Your task to perform on an android device: change keyboard looks Image 0: 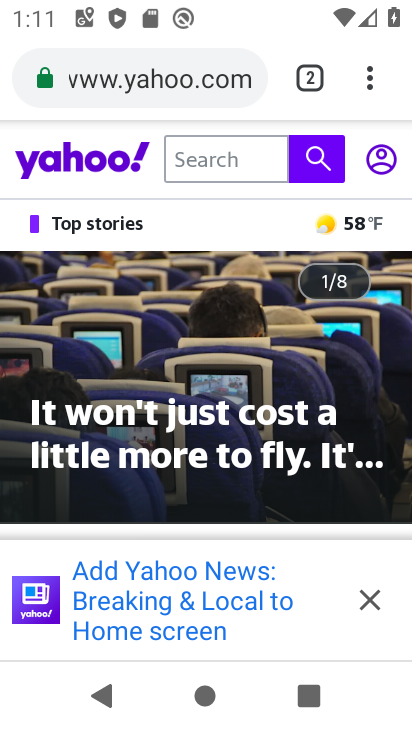
Step 0: press home button
Your task to perform on an android device: change keyboard looks Image 1: 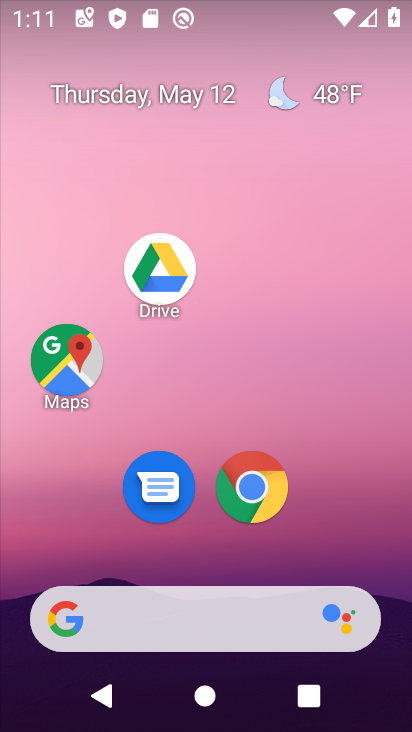
Step 1: drag from (232, 548) to (242, 0)
Your task to perform on an android device: change keyboard looks Image 2: 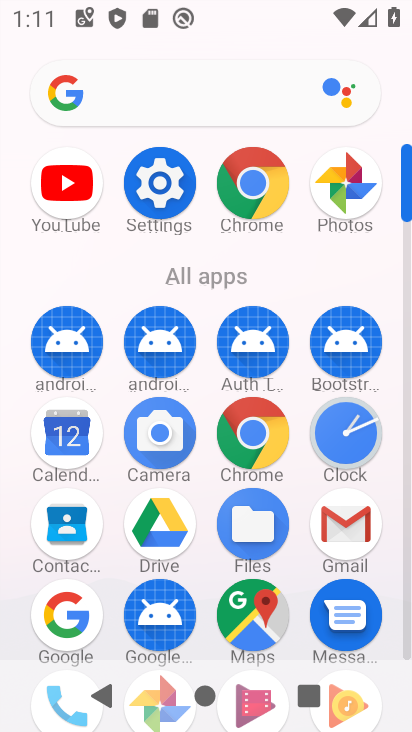
Step 2: click (166, 193)
Your task to perform on an android device: change keyboard looks Image 3: 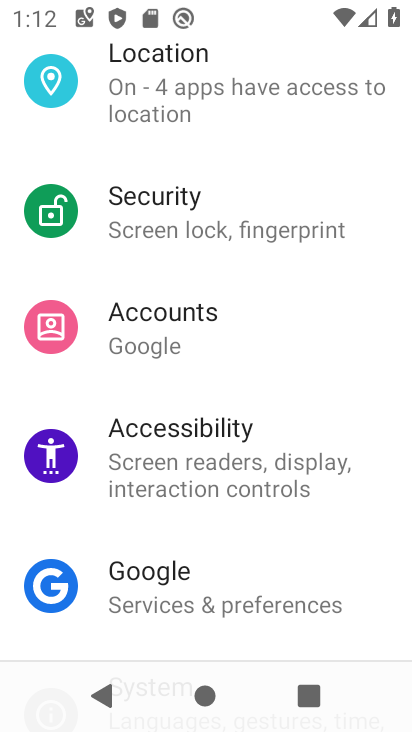
Step 3: drag from (234, 267) to (243, 448)
Your task to perform on an android device: change keyboard looks Image 4: 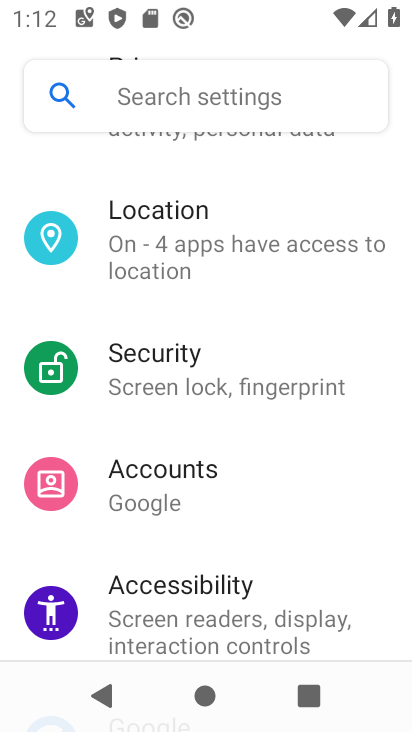
Step 4: drag from (243, 449) to (234, 87)
Your task to perform on an android device: change keyboard looks Image 5: 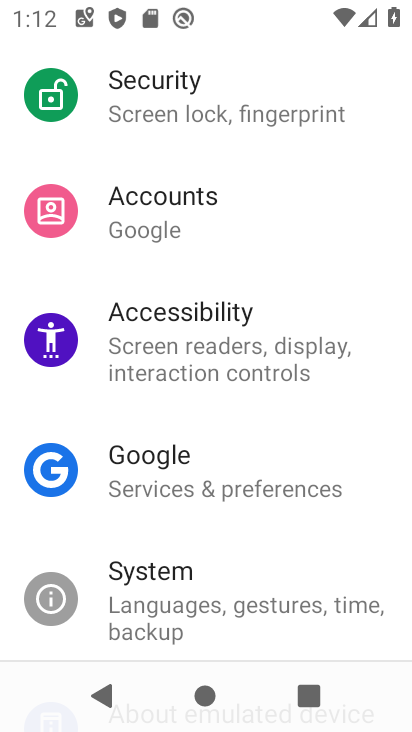
Step 5: click (193, 568)
Your task to perform on an android device: change keyboard looks Image 6: 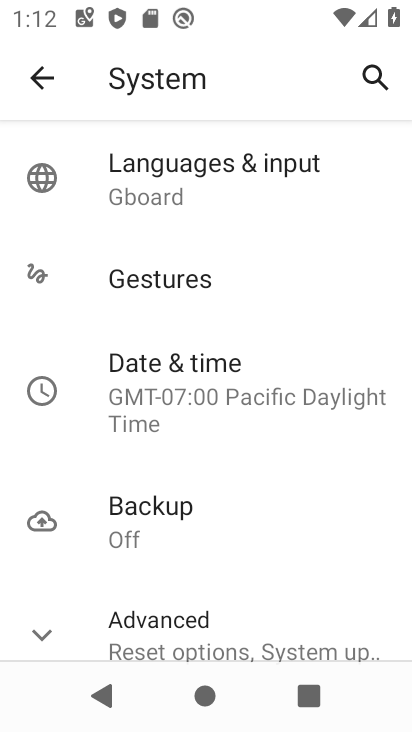
Step 6: click (198, 188)
Your task to perform on an android device: change keyboard looks Image 7: 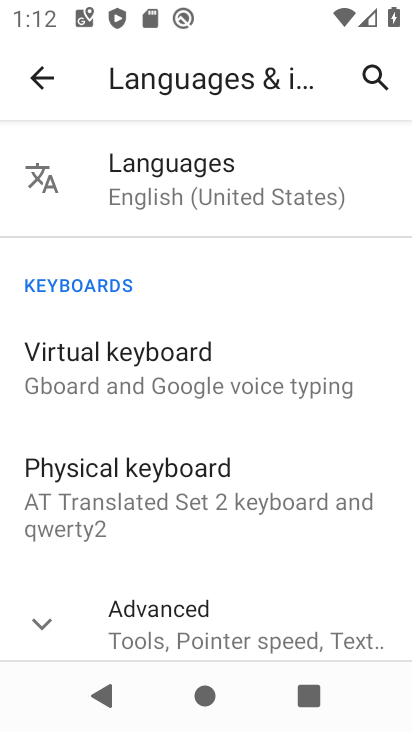
Step 7: click (167, 381)
Your task to perform on an android device: change keyboard looks Image 8: 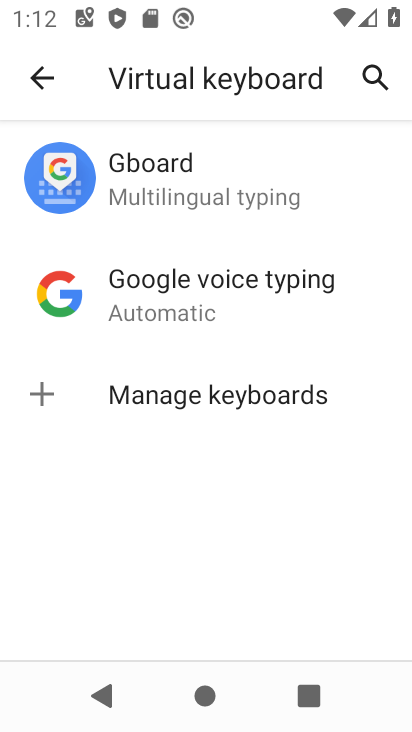
Step 8: click (160, 184)
Your task to perform on an android device: change keyboard looks Image 9: 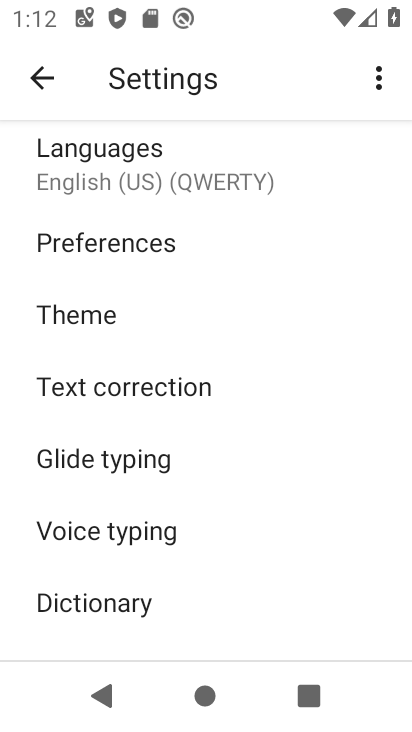
Step 9: click (73, 303)
Your task to perform on an android device: change keyboard looks Image 10: 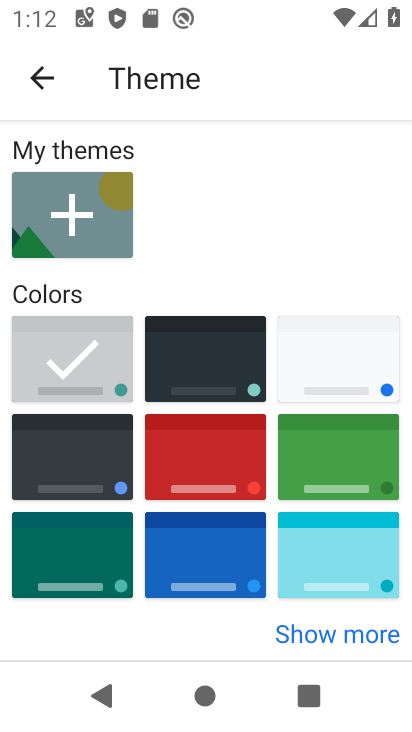
Step 10: click (222, 484)
Your task to perform on an android device: change keyboard looks Image 11: 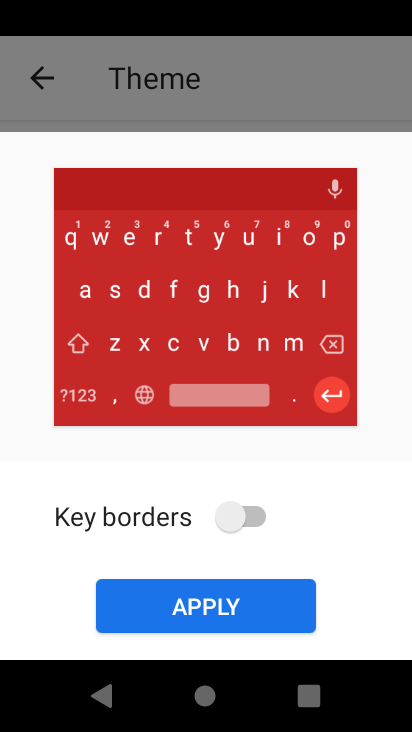
Step 11: click (222, 573)
Your task to perform on an android device: change keyboard looks Image 12: 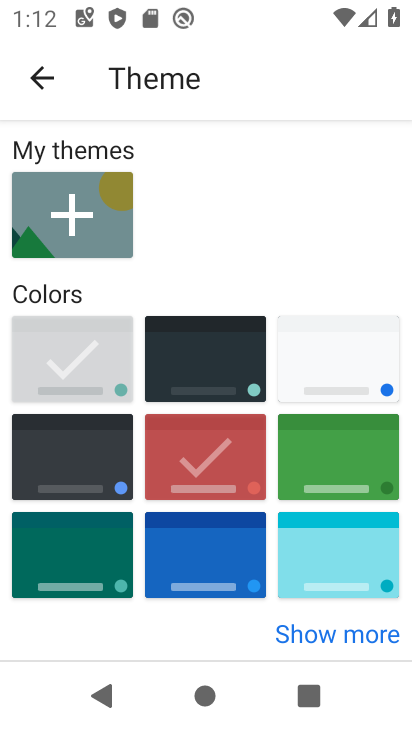
Step 12: task complete